Your task to perform on an android device: What's the weather today? Image 0: 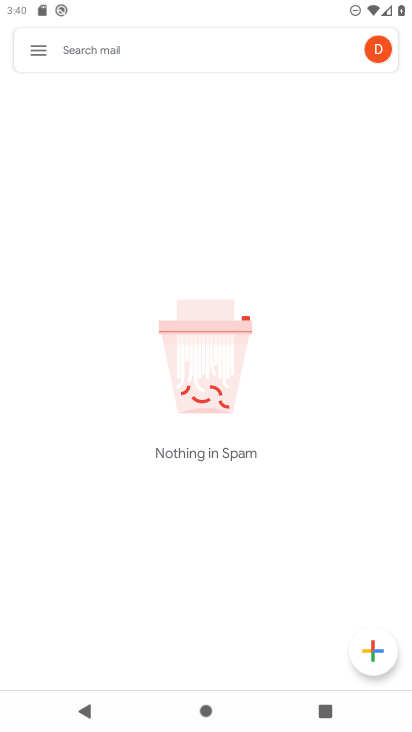
Step 0: press home button
Your task to perform on an android device: What's the weather today? Image 1: 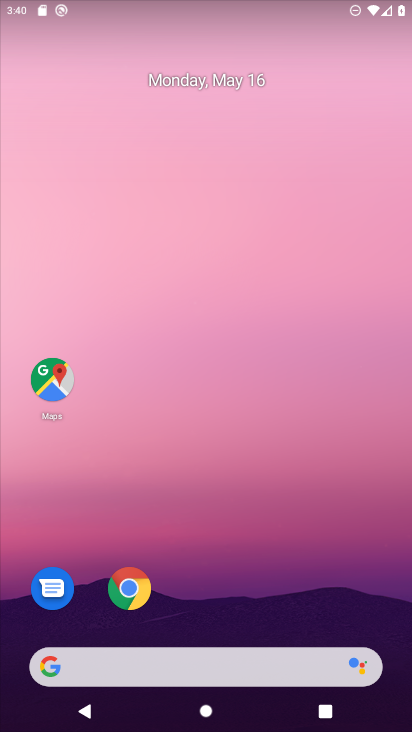
Step 1: click (182, 665)
Your task to perform on an android device: What's the weather today? Image 2: 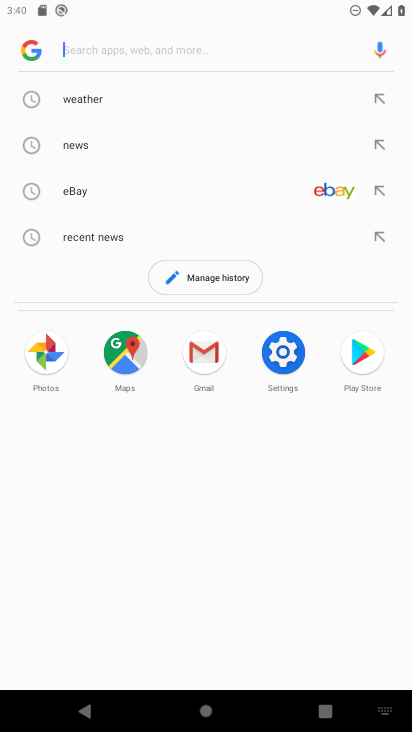
Step 2: click (81, 105)
Your task to perform on an android device: What's the weather today? Image 3: 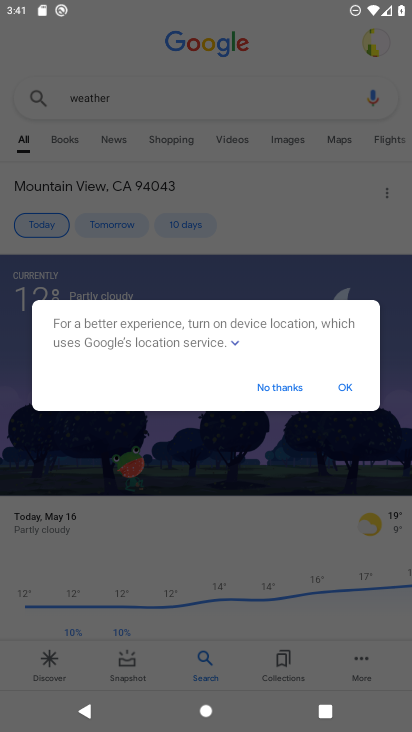
Step 3: click (286, 389)
Your task to perform on an android device: What's the weather today? Image 4: 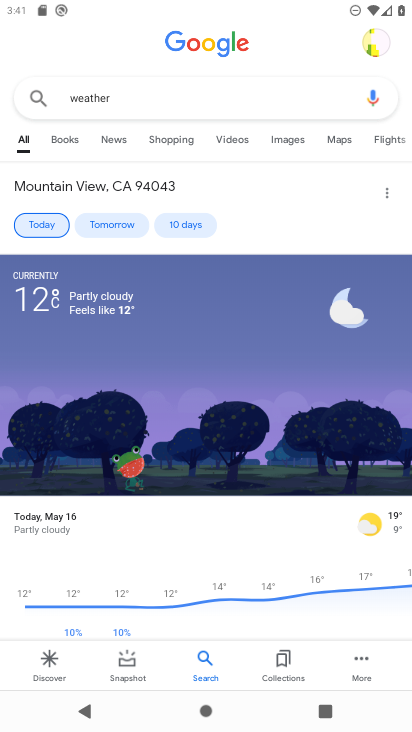
Step 4: task complete